Your task to perform on an android device: turn off priority inbox in the gmail app Image 0: 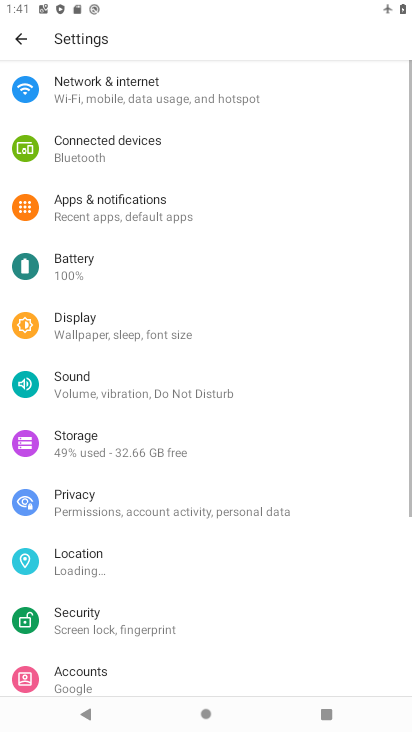
Step 0: press home button
Your task to perform on an android device: turn off priority inbox in the gmail app Image 1: 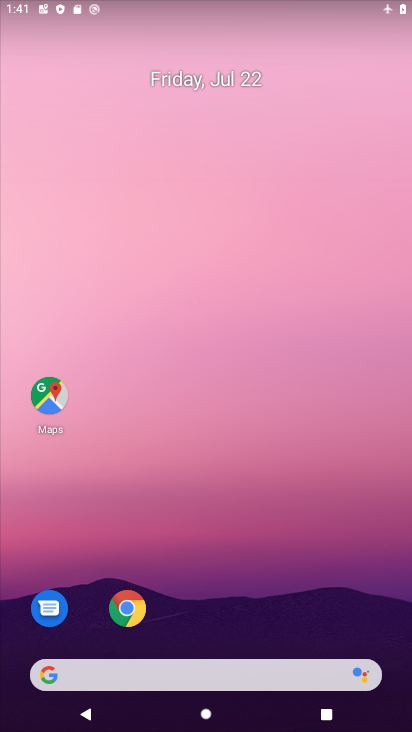
Step 1: drag from (258, 718) to (280, 306)
Your task to perform on an android device: turn off priority inbox in the gmail app Image 2: 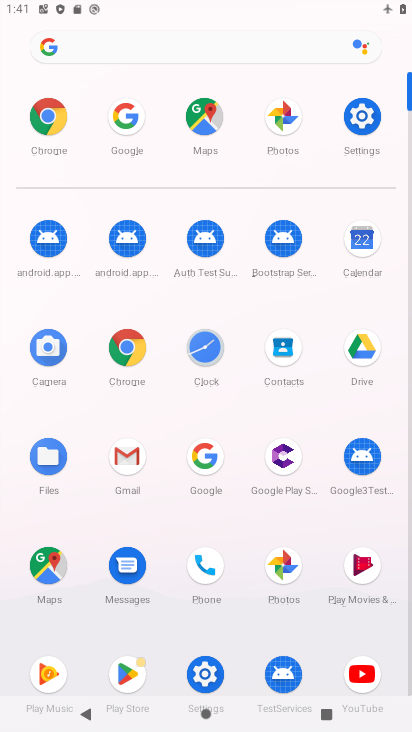
Step 2: click (123, 451)
Your task to perform on an android device: turn off priority inbox in the gmail app Image 3: 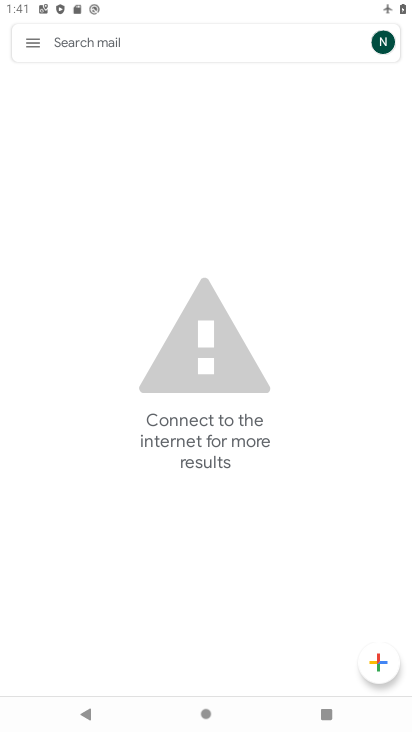
Step 3: click (22, 38)
Your task to perform on an android device: turn off priority inbox in the gmail app Image 4: 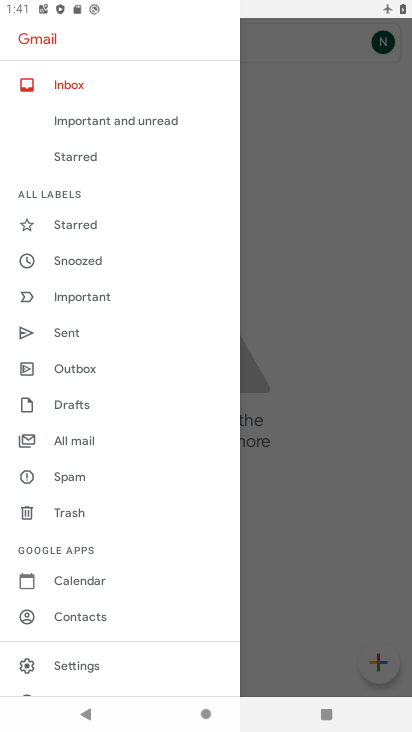
Step 4: click (90, 663)
Your task to perform on an android device: turn off priority inbox in the gmail app Image 5: 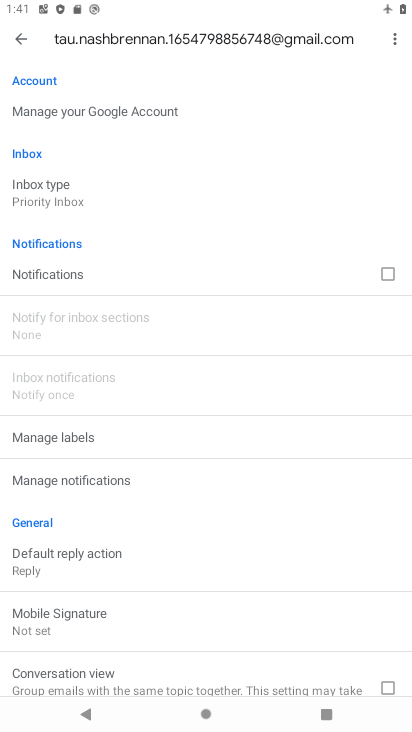
Step 5: click (48, 198)
Your task to perform on an android device: turn off priority inbox in the gmail app Image 6: 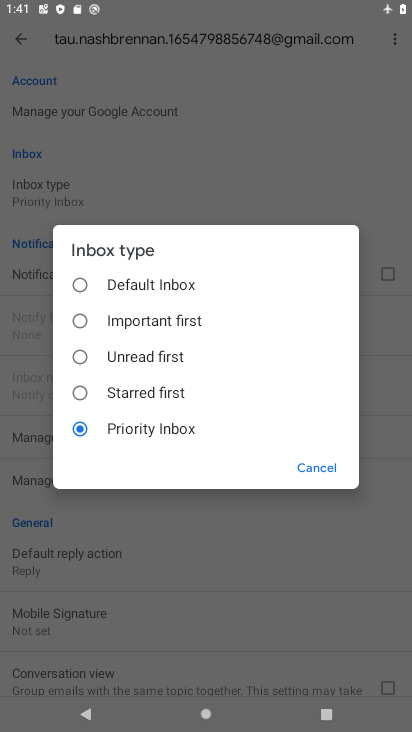
Step 6: click (76, 282)
Your task to perform on an android device: turn off priority inbox in the gmail app Image 7: 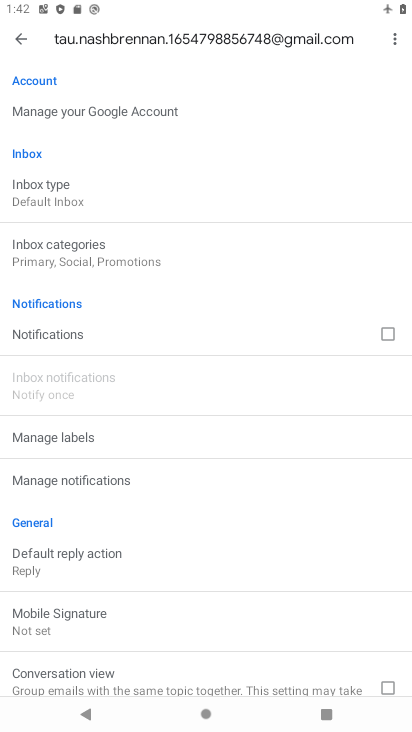
Step 7: task complete